Your task to perform on an android device: make emails show in primary in the gmail app Image 0: 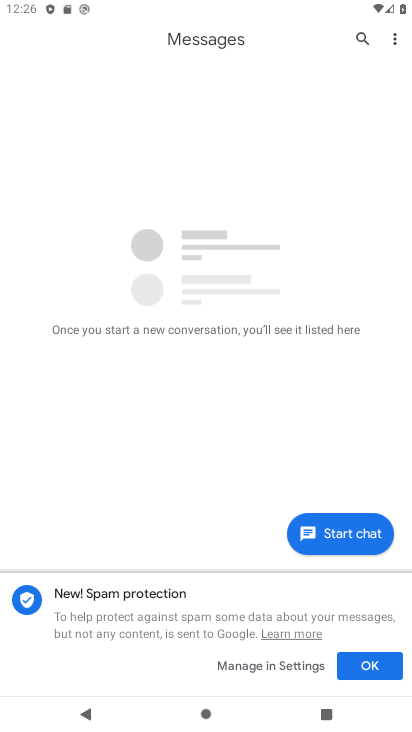
Step 0: press home button
Your task to perform on an android device: make emails show in primary in the gmail app Image 1: 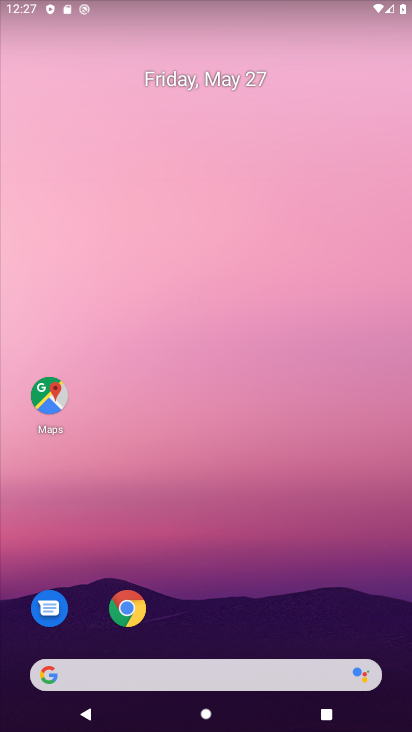
Step 1: drag from (190, 642) to (251, 114)
Your task to perform on an android device: make emails show in primary in the gmail app Image 2: 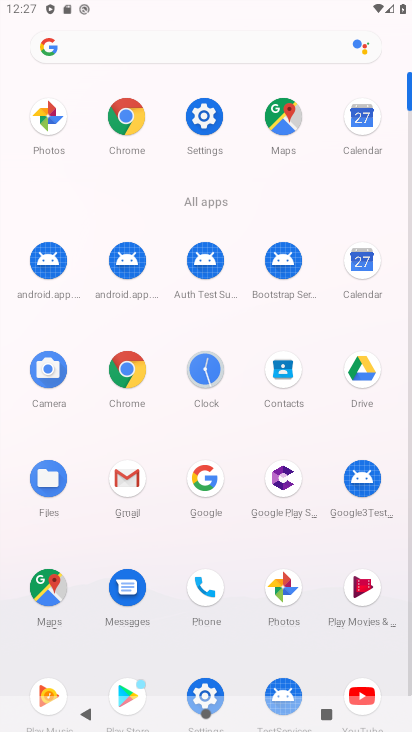
Step 2: click (125, 493)
Your task to perform on an android device: make emails show in primary in the gmail app Image 3: 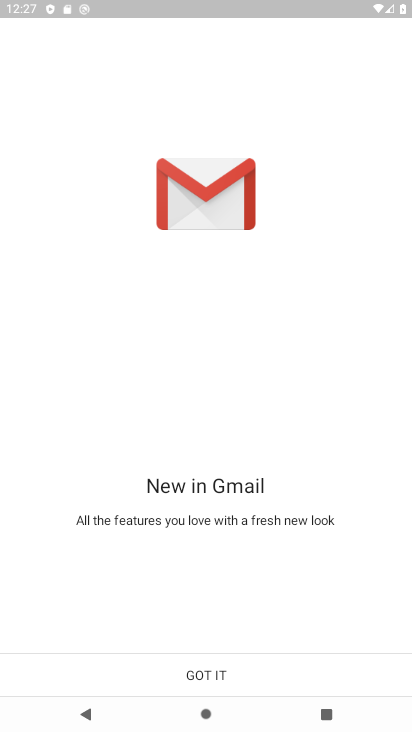
Step 3: click (212, 673)
Your task to perform on an android device: make emails show in primary in the gmail app Image 4: 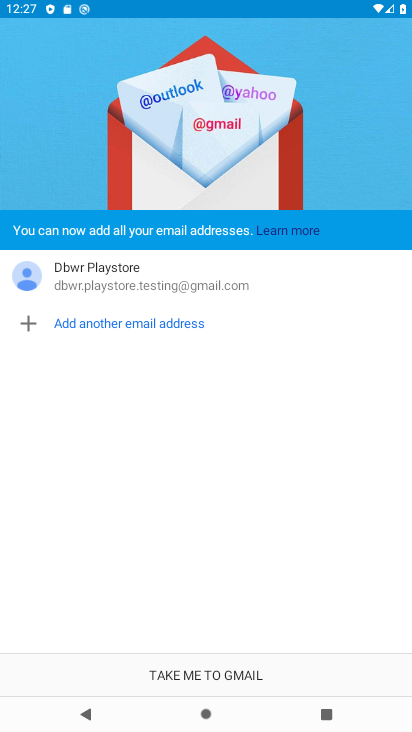
Step 4: click (214, 668)
Your task to perform on an android device: make emails show in primary in the gmail app Image 5: 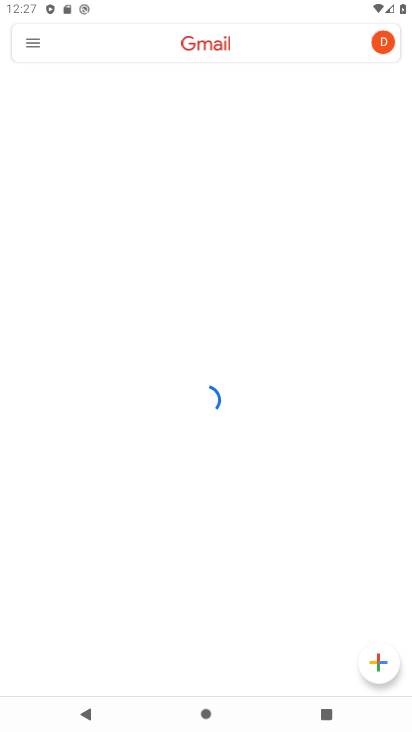
Step 5: click (37, 41)
Your task to perform on an android device: make emails show in primary in the gmail app Image 6: 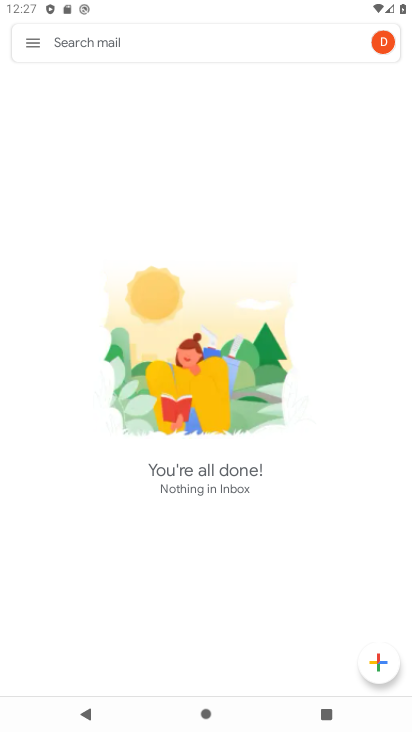
Step 6: click (37, 41)
Your task to perform on an android device: make emails show in primary in the gmail app Image 7: 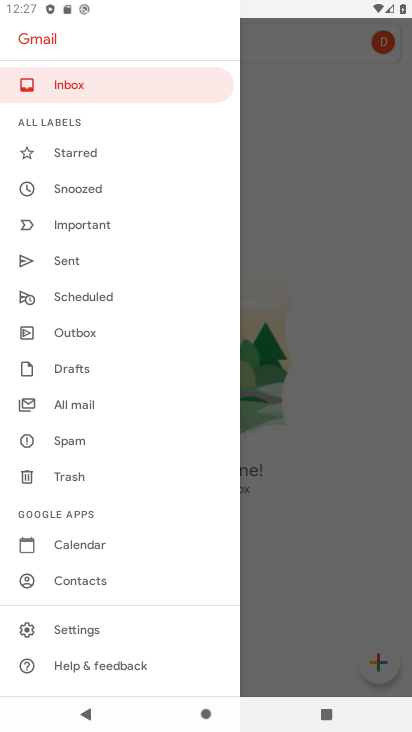
Step 7: click (93, 625)
Your task to perform on an android device: make emails show in primary in the gmail app Image 8: 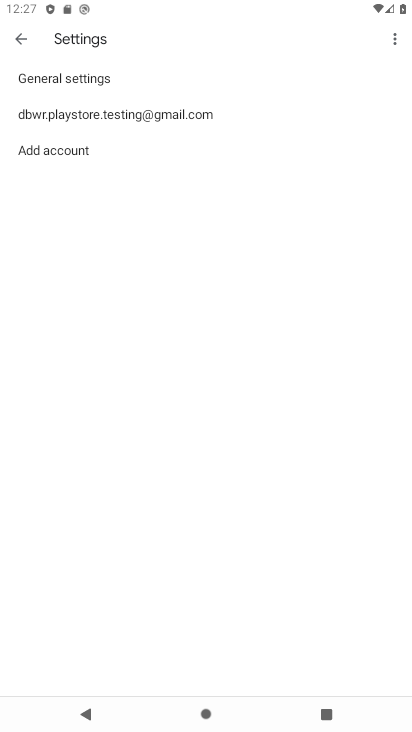
Step 8: click (144, 109)
Your task to perform on an android device: make emails show in primary in the gmail app Image 9: 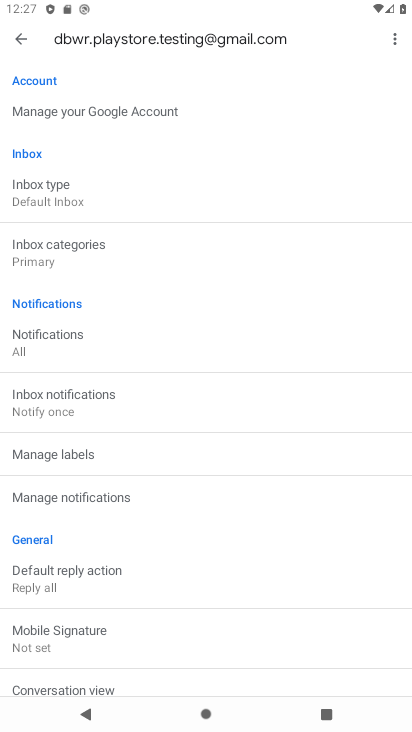
Step 9: click (78, 274)
Your task to perform on an android device: make emails show in primary in the gmail app Image 10: 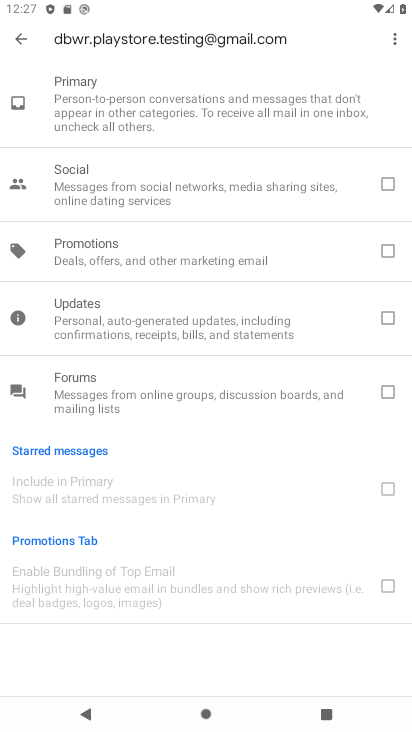
Step 10: click (399, 179)
Your task to perform on an android device: make emails show in primary in the gmail app Image 11: 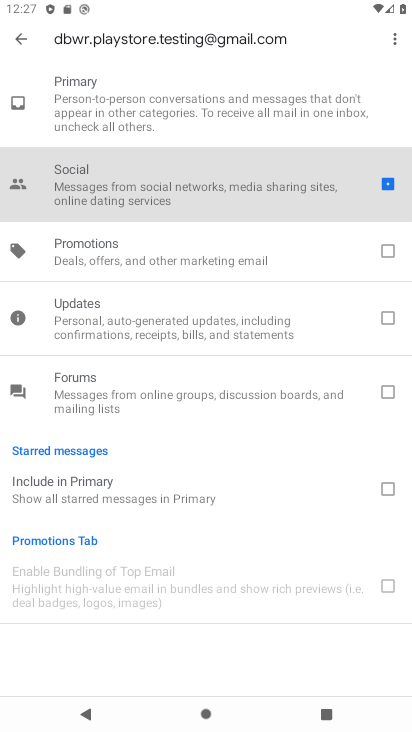
Step 11: click (379, 259)
Your task to perform on an android device: make emails show in primary in the gmail app Image 12: 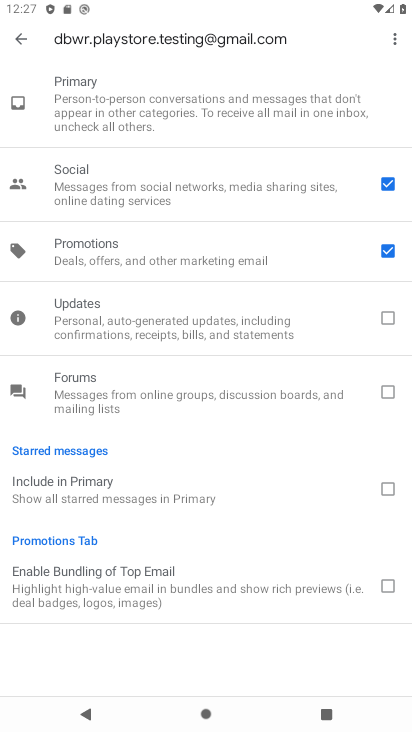
Step 12: click (388, 316)
Your task to perform on an android device: make emails show in primary in the gmail app Image 13: 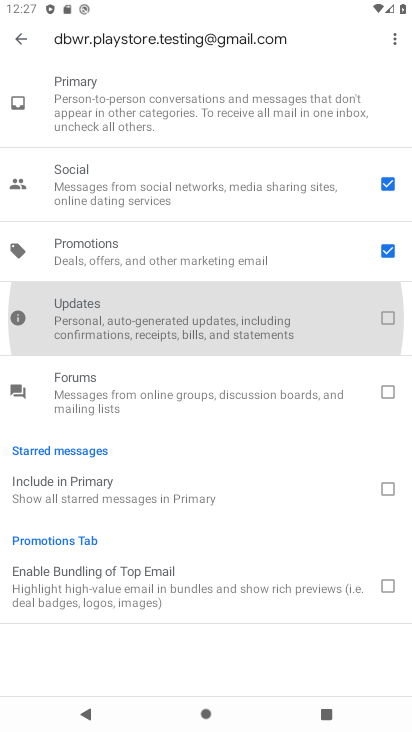
Step 13: click (398, 392)
Your task to perform on an android device: make emails show in primary in the gmail app Image 14: 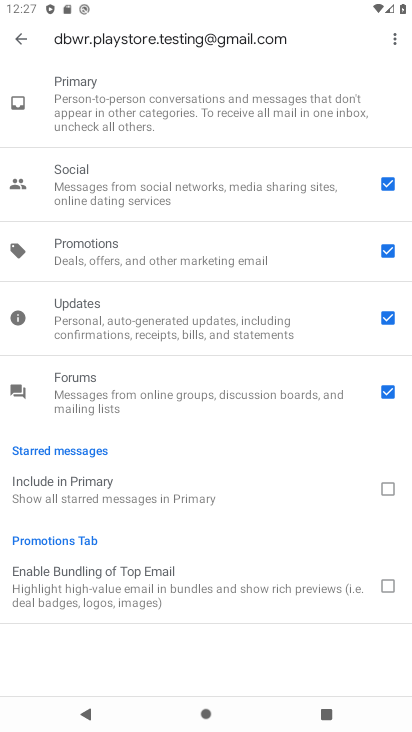
Step 14: click (380, 476)
Your task to perform on an android device: make emails show in primary in the gmail app Image 15: 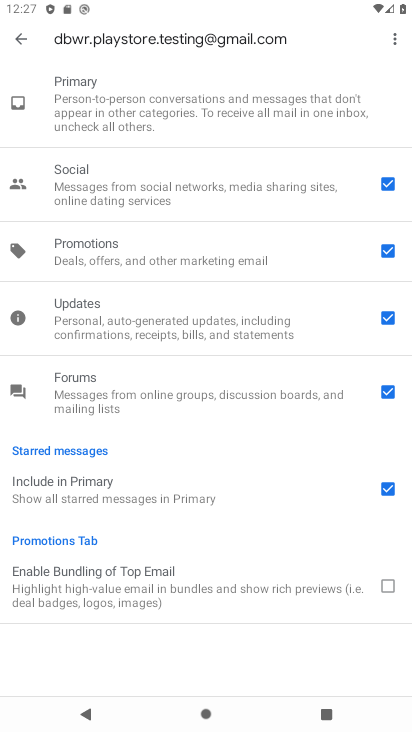
Step 15: task complete